Your task to perform on an android device: Open my contact list Image 0: 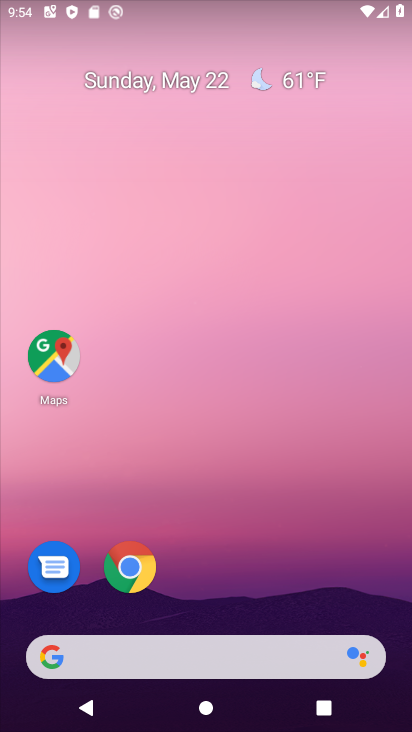
Step 0: drag from (225, 640) to (204, 24)
Your task to perform on an android device: Open my contact list Image 1: 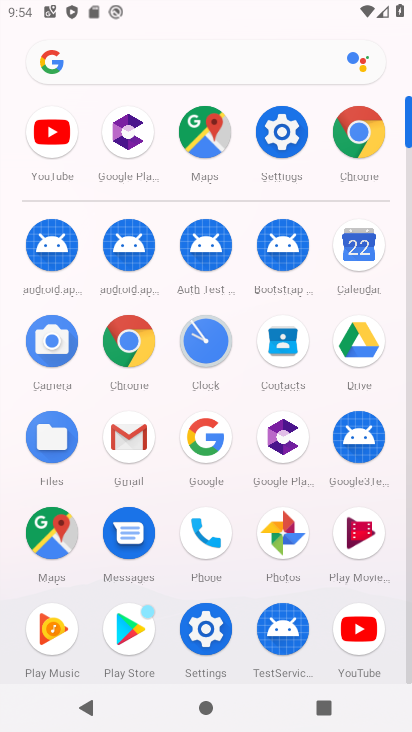
Step 1: click (204, 532)
Your task to perform on an android device: Open my contact list Image 2: 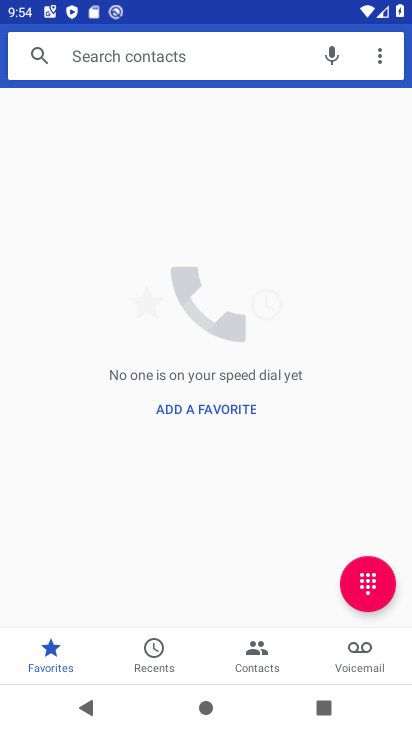
Step 2: click (255, 643)
Your task to perform on an android device: Open my contact list Image 3: 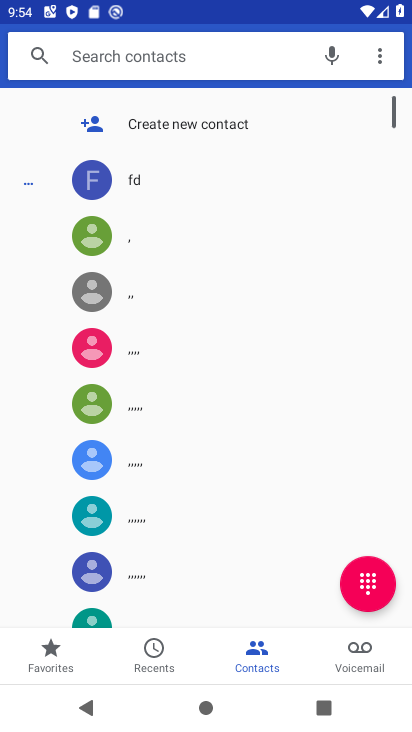
Step 3: task complete